Your task to perform on an android device: turn on data saver in the chrome app Image 0: 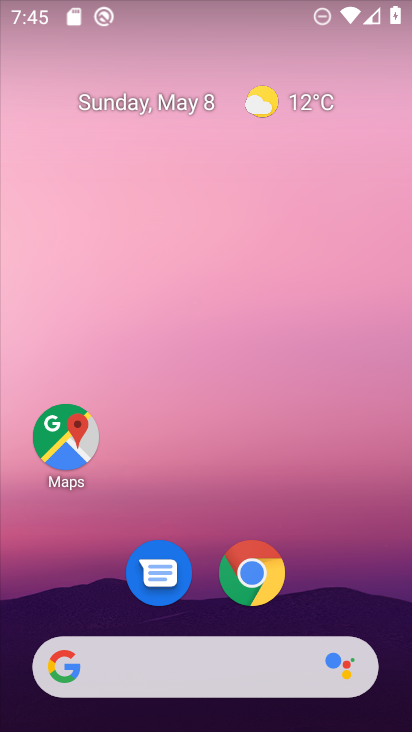
Step 0: click (256, 580)
Your task to perform on an android device: turn on data saver in the chrome app Image 1: 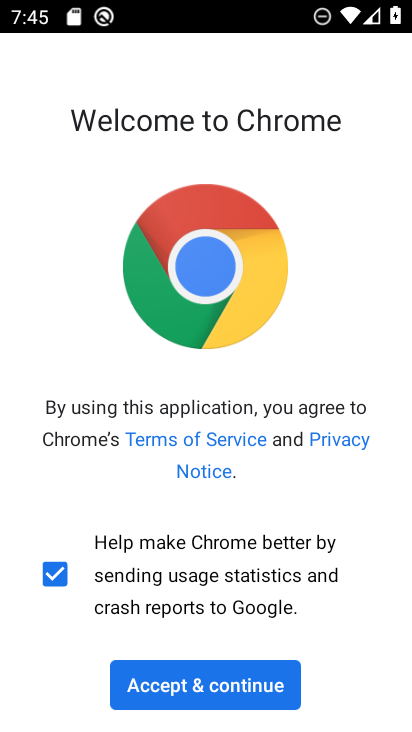
Step 1: click (186, 681)
Your task to perform on an android device: turn on data saver in the chrome app Image 2: 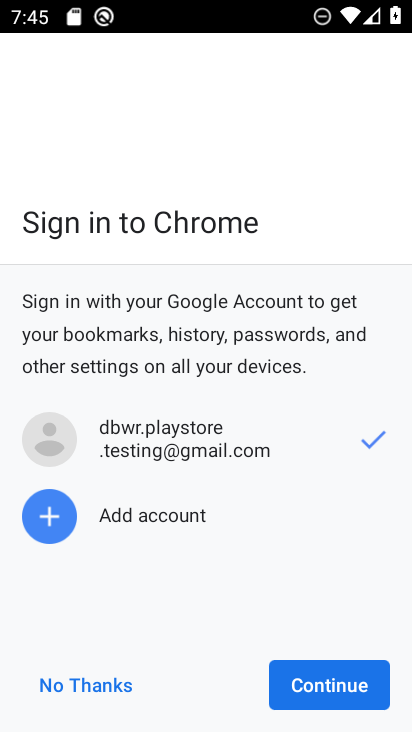
Step 2: click (113, 690)
Your task to perform on an android device: turn on data saver in the chrome app Image 3: 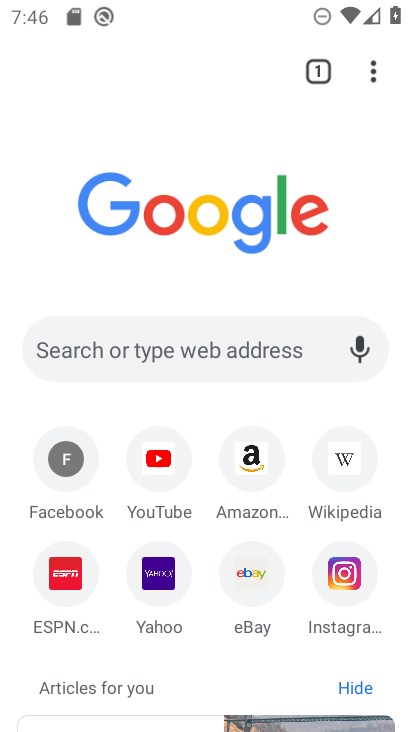
Step 3: drag from (373, 67) to (140, 607)
Your task to perform on an android device: turn on data saver in the chrome app Image 4: 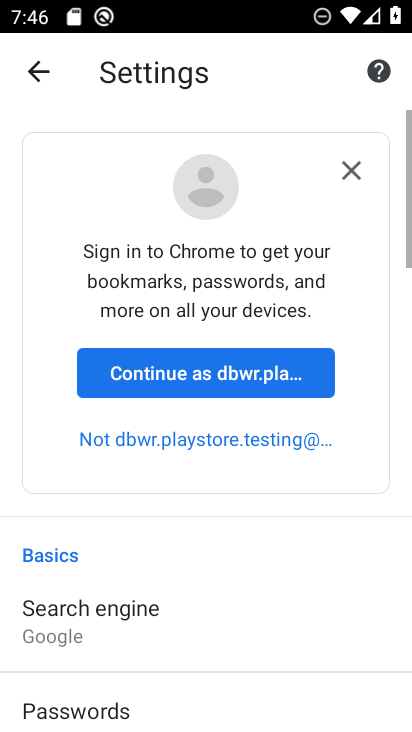
Step 4: drag from (256, 633) to (273, 156)
Your task to perform on an android device: turn on data saver in the chrome app Image 5: 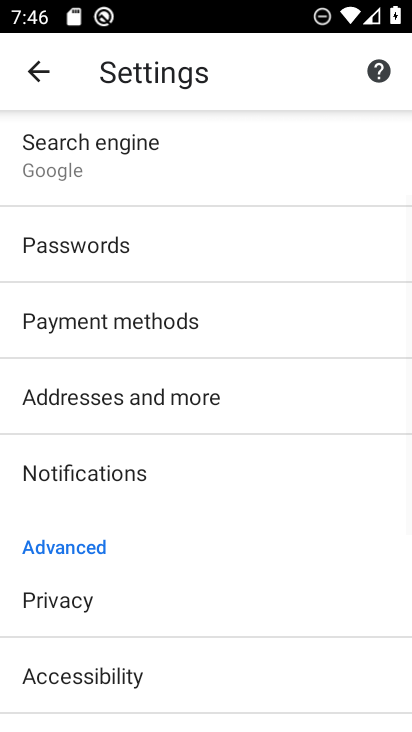
Step 5: drag from (259, 544) to (275, 128)
Your task to perform on an android device: turn on data saver in the chrome app Image 6: 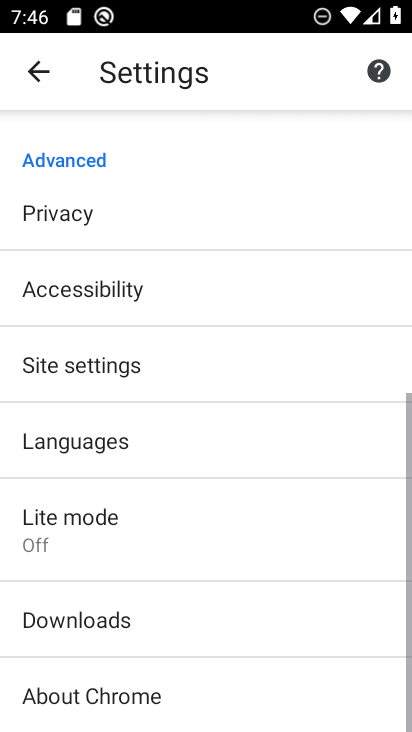
Step 6: click (67, 535)
Your task to perform on an android device: turn on data saver in the chrome app Image 7: 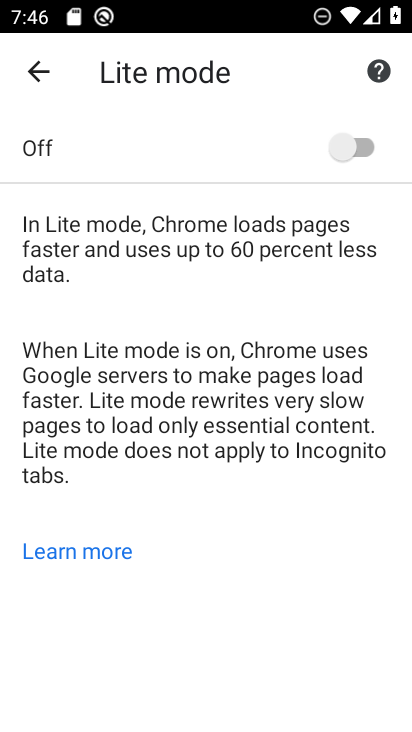
Step 7: click (350, 149)
Your task to perform on an android device: turn on data saver in the chrome app Image 8: 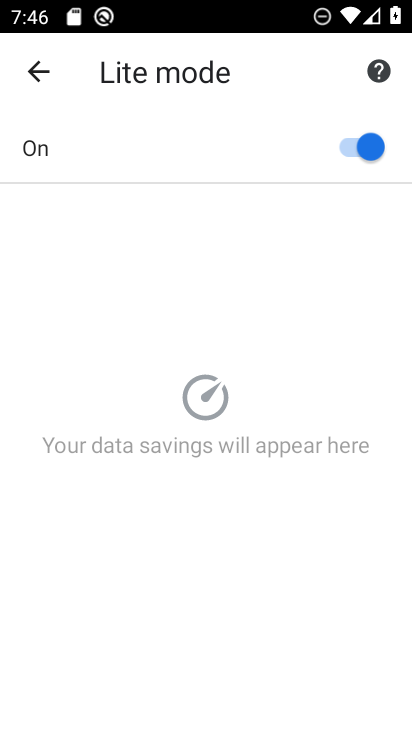
Step 8: task complete